Your task to perform on an android device: change the clock style Image 0: 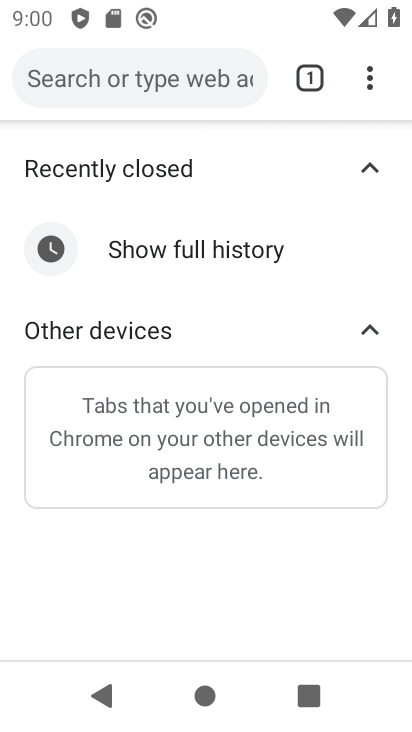
Step 0: press back button
Your task to perform on an android device: change the clock style Image 1: 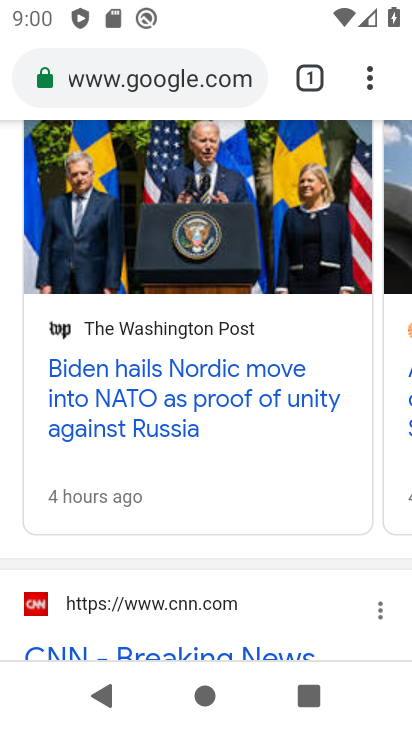
Step 1: press back button
Your task to perform on an android device: change the clock style Image 2: 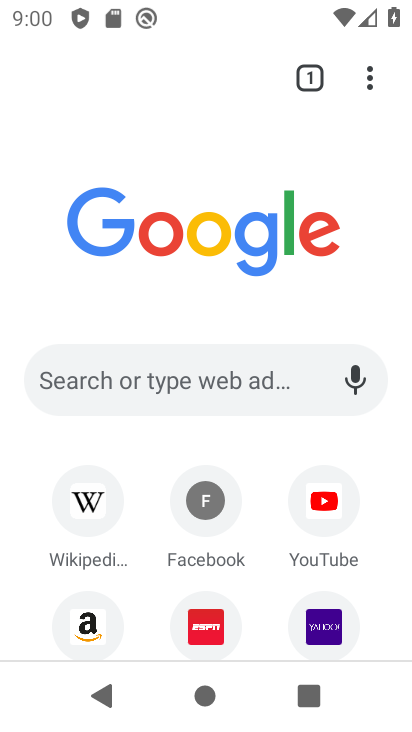
Step 2: press back button
Your task to perform on an android device: change the clock style Image 3: 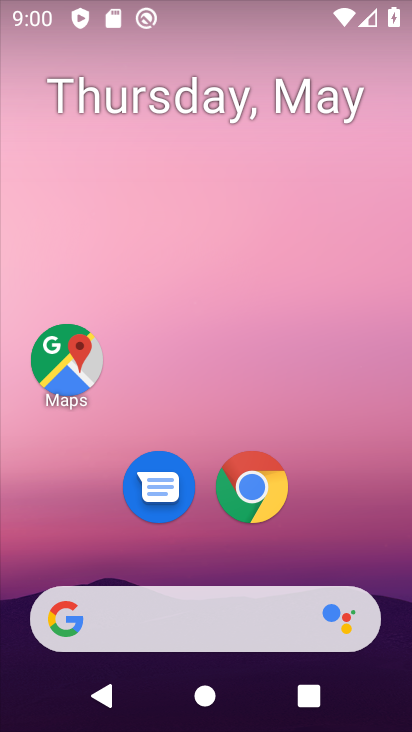
Step 3: drag from (162, 562) to (260, 85)
Your task to perform on an android device: change the clock style Image 4: 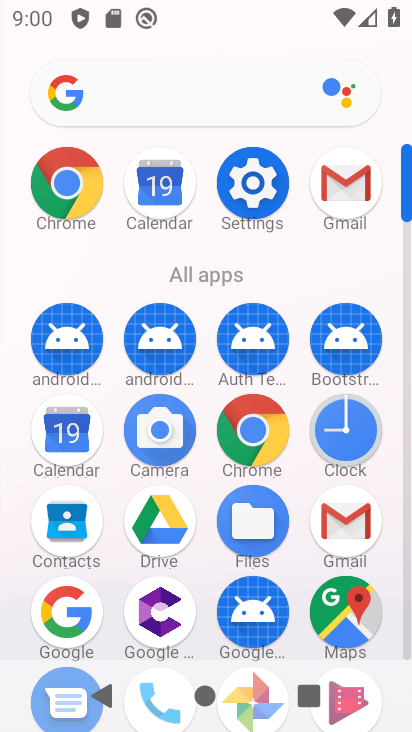
Step 4: click (359, 445)
Your task to perform on an android device: change the clock style Image 5: 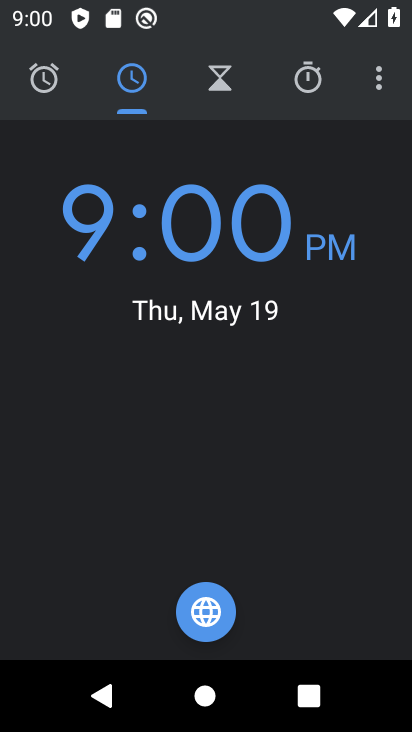
Step 5: click (362, 77)
Your task to perform on an android device: change the clock style Image 6: 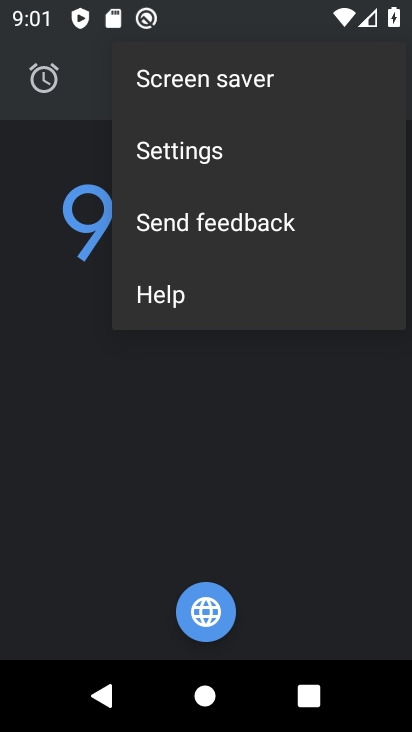
Step 6: click (181, 148)
Your task to perform on an android device: change the clock style Image 7: 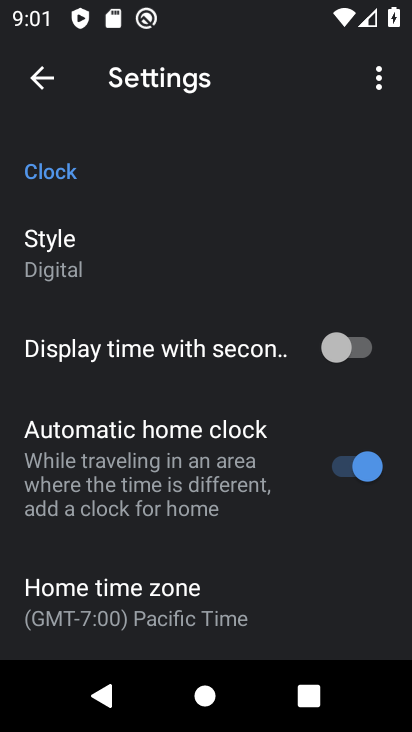
Step 7: click (89, 270)
Your task to perform on an android device: change the clock style Image 8: 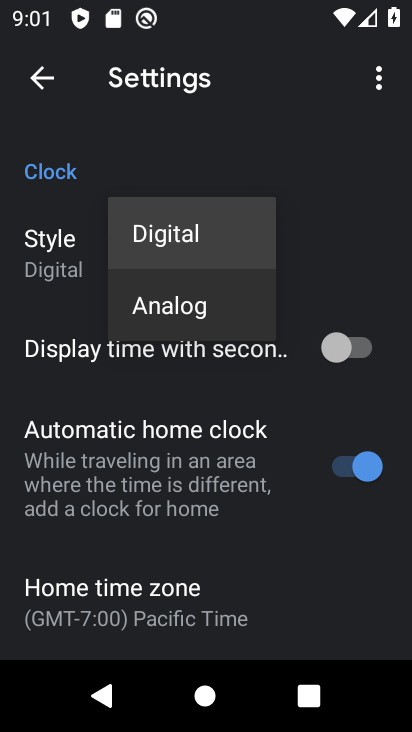
Step 8: click (174, 314)
Your task to perform on an android device: change the clock style Image 9: 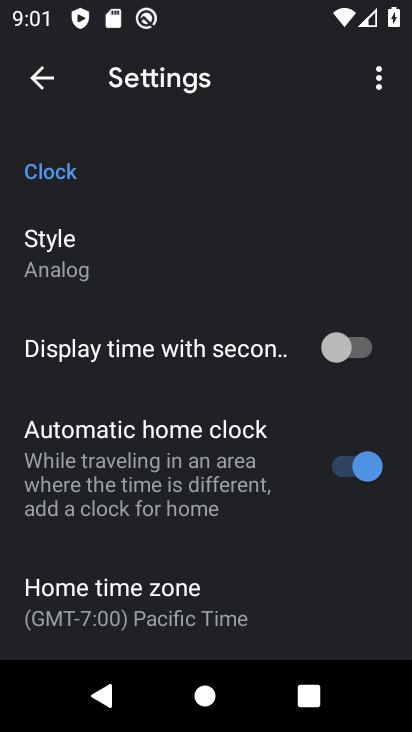
Step 9: task complete